Your task to perform on an android device: open a bookmark in the chrome app Image 0: 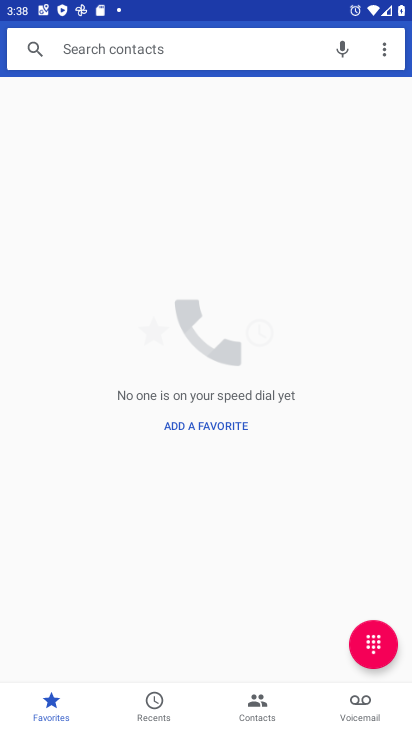
Step 0: task complete